Your task to perform on an android device: turn off smart reply in the gmail app Image 0: 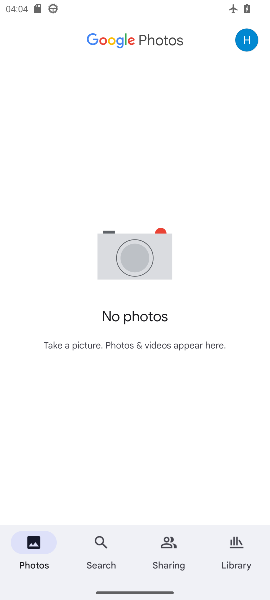
Step 0: press home button
Your task to perform on an android device: turn off smart reply in the gmail app Image 1: 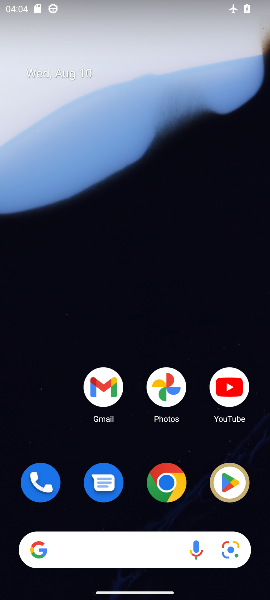
Step 1: drag from (144, 500) to (219, 34)
Your task to perform on an android device: turn off smart reply in the gmail app Image 2: 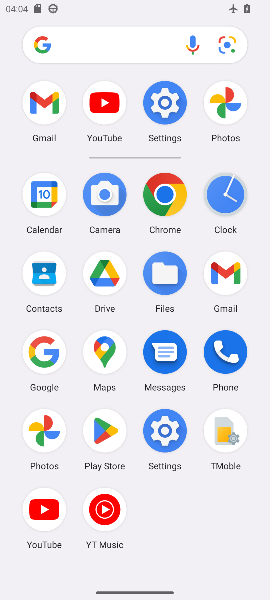
Step 2: click (229, 271)
Your task to perform on an android device: turn off smart reply in the gmail app Image 3: 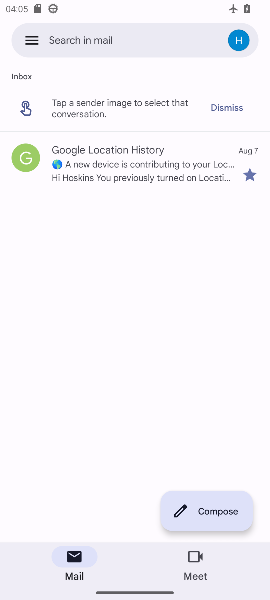
Step 3: click (29, 43)
Your task to perform on an android device: turn off smart reply in the gmail app Image 4: 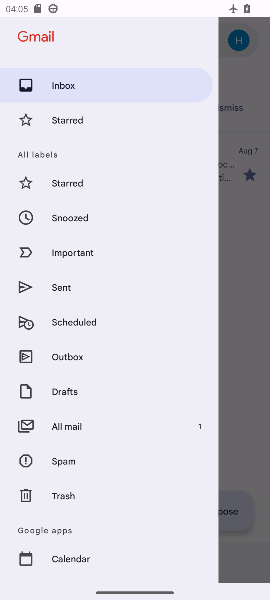
Step 4: drag from (122, 478) to (139, 152)
Your task to perform on an android device: turn off smart reply in the gmail app Image 5: 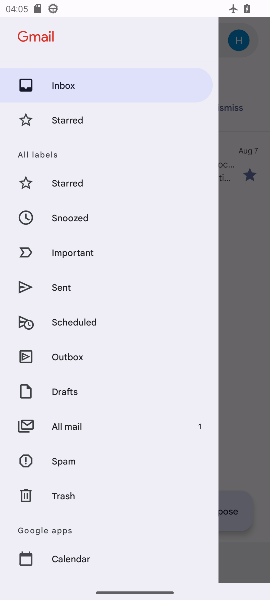
Step 5: drag from (93, 531) to (116, 129)
Your task to perform on an android device: turn off smart reply in the gmail app Image 6: 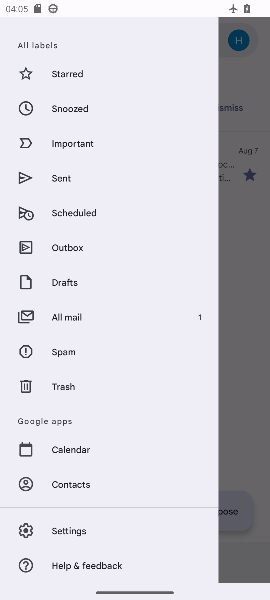
Step 6: click (61, 525)
Your task to perform on an android device: turn off smart reply in the gmail app Image 7: 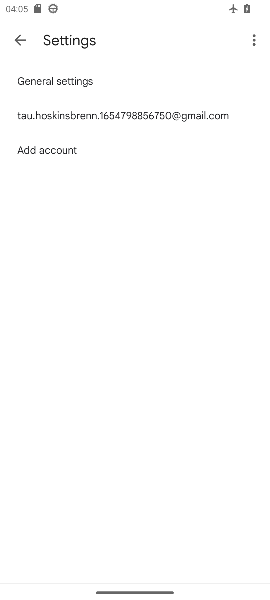
Step 7: click (121, 113)
Your task to perform on an android device: turn off smart reply in the gmail app Image 8: 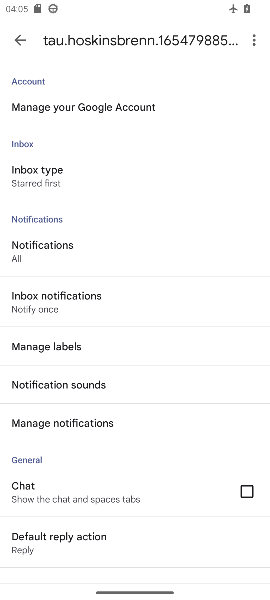
Step 8: drag from (80, 511) to (97, 220)
Your task to perform on an android device: turn off smart reply in the gmail app Image 9: 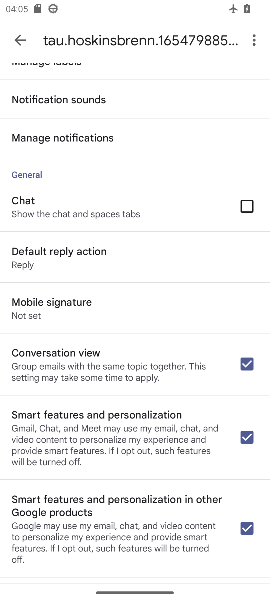
Step 9: drag from (75, 509) to (109, 209)
Your task to perform on an android device: turn off smart reply in the gmail app Image 10: 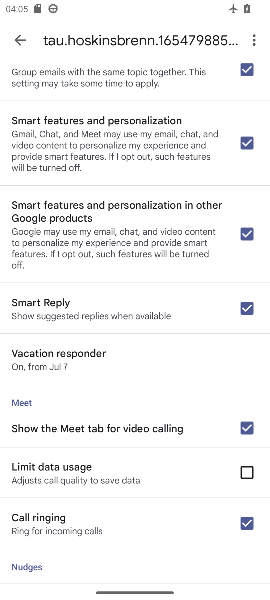
Step 10: click (72, 312)
Your task to perform on an android device: turn off smart reply in the gmail app Image 11: 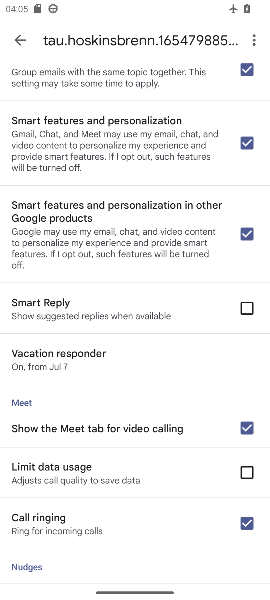
Step 11: task complete